Your task to perform on an android device: delete a single message in the gmail app Image 0: 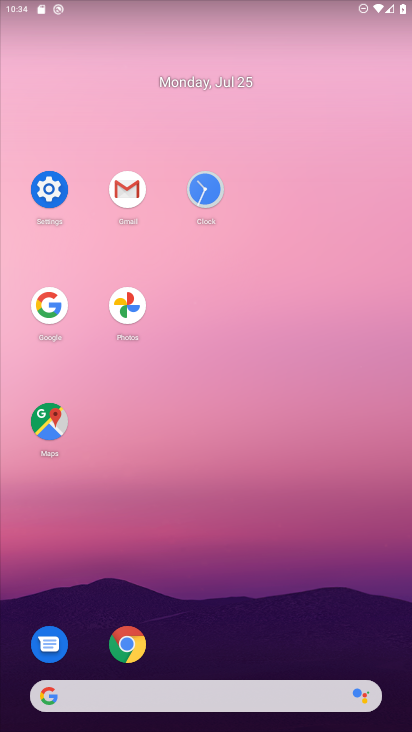
Step 0: click (130, 187)
Your task to perform on an android device: delete a single message in the gmail app Image 1: 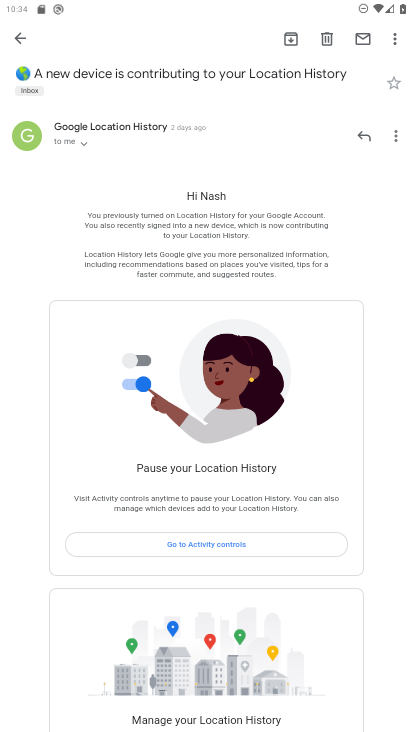
Step 1: click (328, 36)
Your task to perform on an android device: delete a single message in the gmail app Image 2: 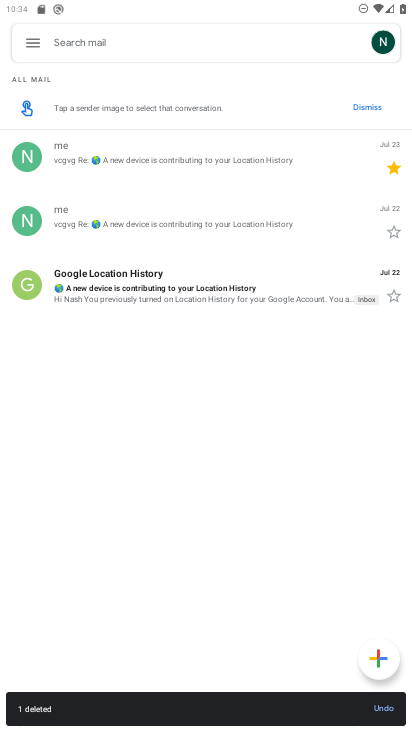
Step 2: task complete